Your task to perform on an android device: check the backup settings in the google photos Image 0: 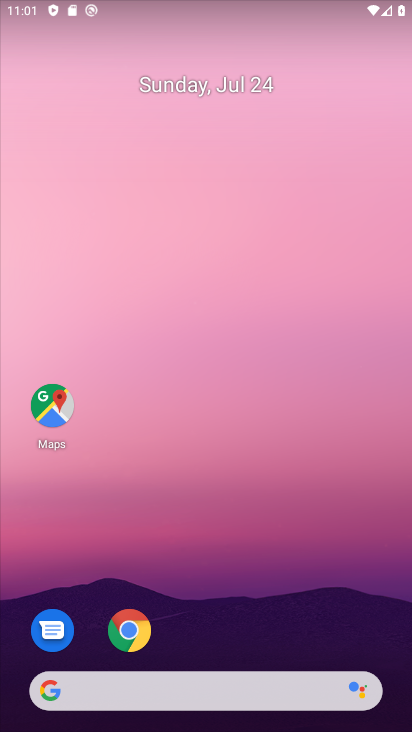
Step 0: drag from (228, 619) to (225, 123)
Your task to perform on an android device: check the backup settings in the google photos Image 1: 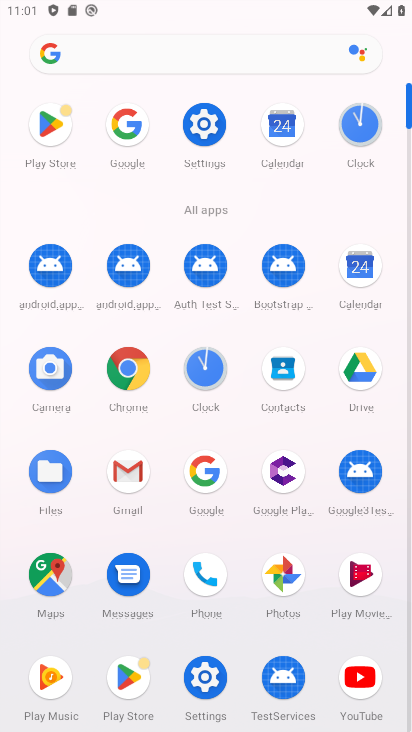
Step 1: click (283, 570)
Your task to perform on an android device: check the backup settings in the google photos Image 2: 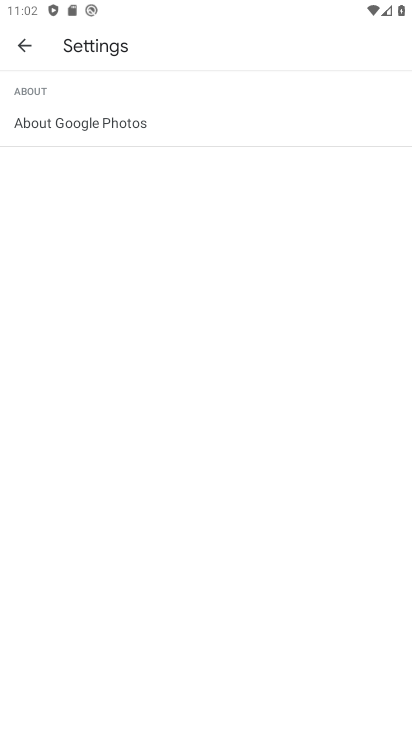
Step 2: click (31, 45)
Your task to perform on an android device: check the backup settings in the google photos Image 3: 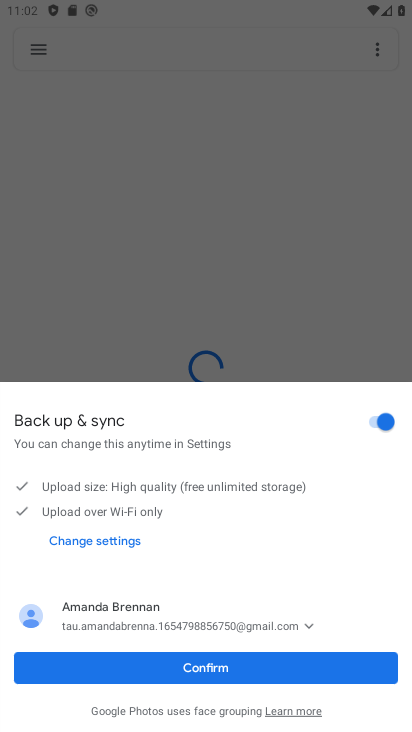
Step 3: click (34, 39)
Your task to perform on an android device: check the backup settings in the google photos Image 4: 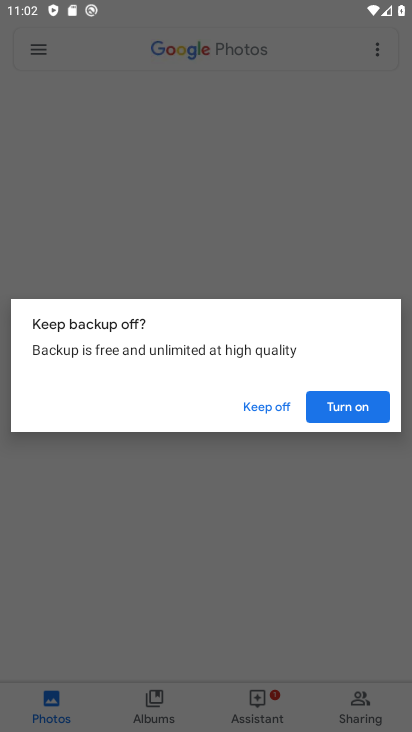
Step 4: click (360, 392)
Your task to perform on an android device: check the backup settings in the google photos Image 5: 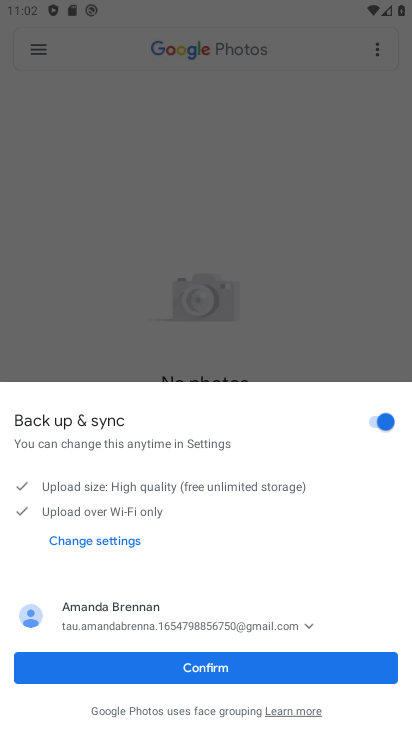
Step 5: click (270, 667)
Your task to perform on an android device: check the backup settings in the google photos Image 6: 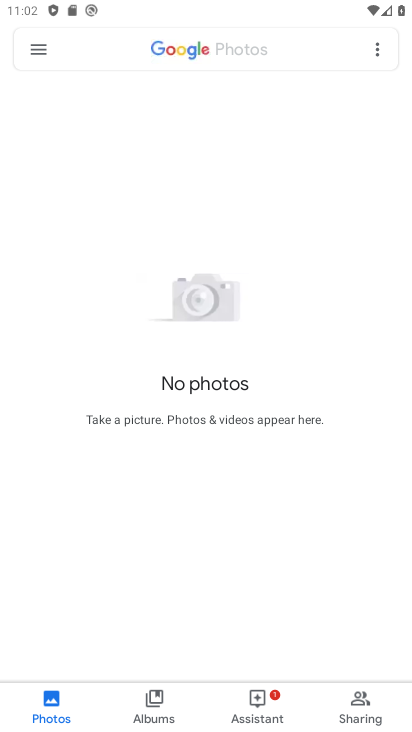
Step 6: click (32, 56)
Your task to perform on an android device: check the backup settings in the google photos Image 7: 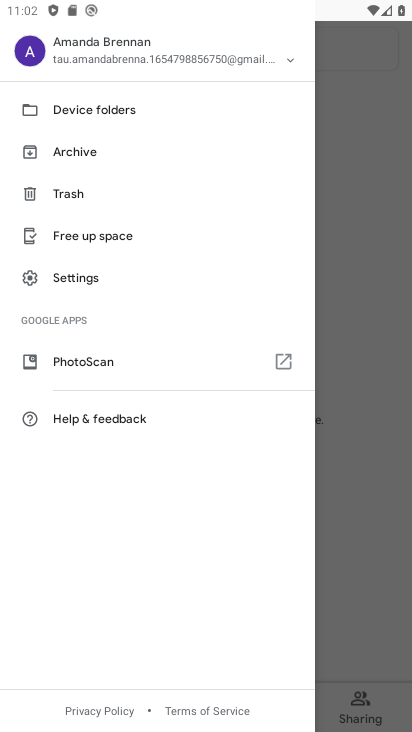
Step 7: click (79, 288)
Your task to perform on an android device: check the backup settings in the google photos Image 8: 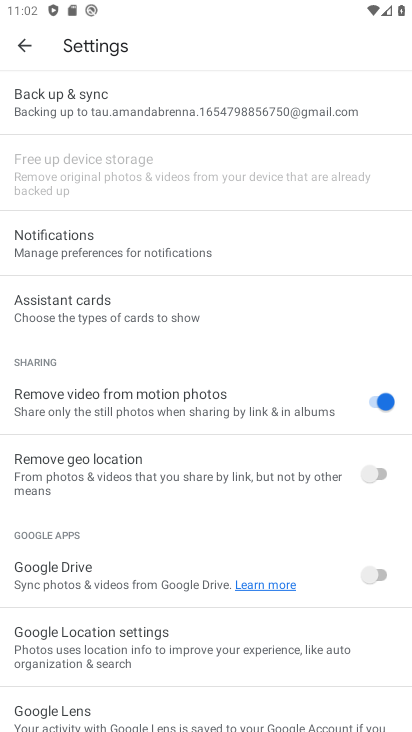
Step 8: click (243, 106)
Your task to perform on an android device: check the backup settings in the google photos Image 9: 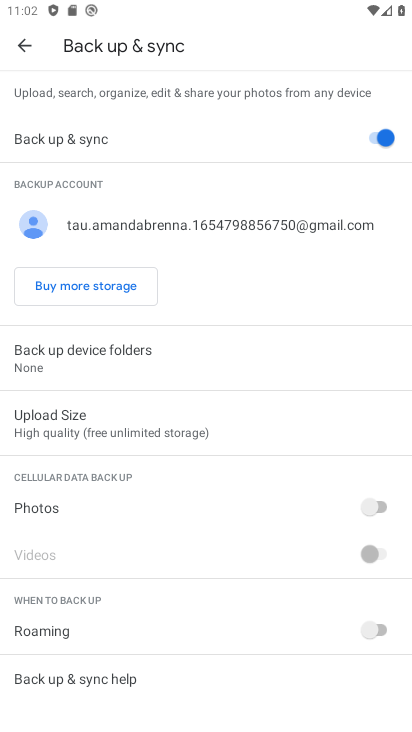
Step 9: task complete